Your task to perform on an android device: Open location settings Image 0: 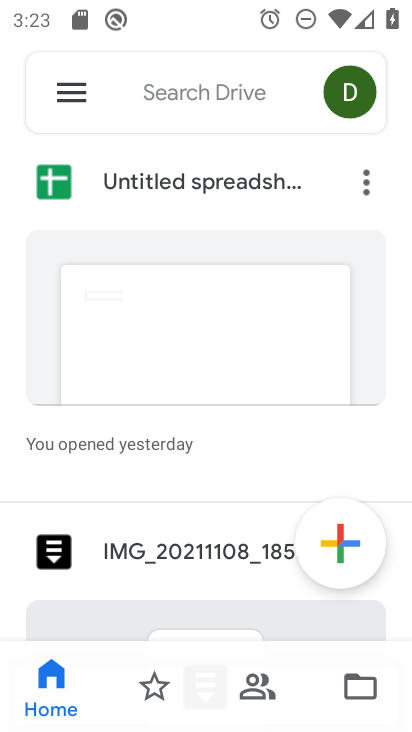
Step 0: press home button
Your task to perform on an android device: Open location settings Image 1: 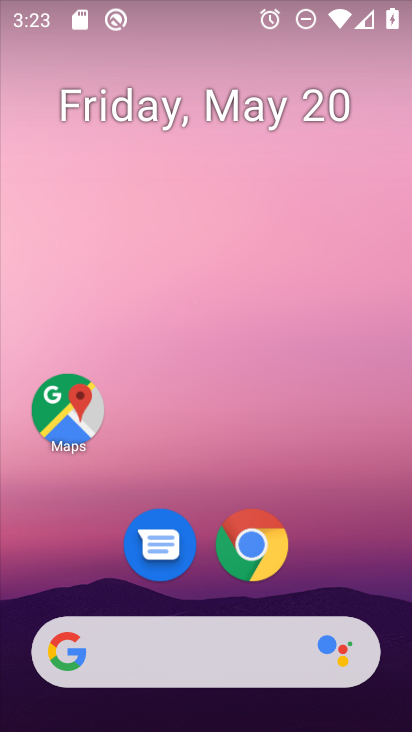
Step 1: drag from (360, 548) to (264, 41)
Your task to perform on an android device: Open location settings Image 2: 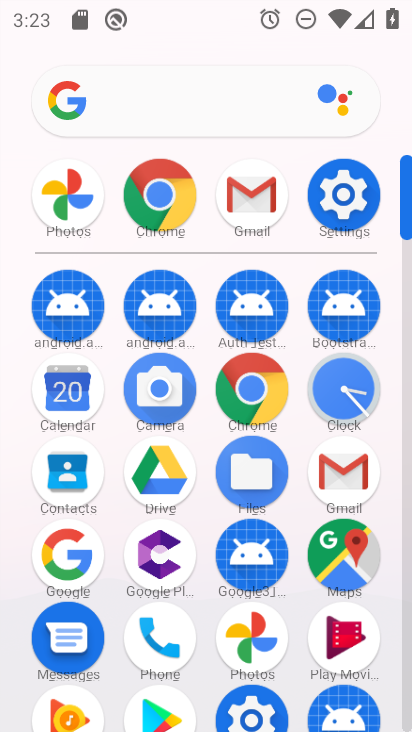
Step 2: click (350, 206)
Your task to perform on an android device: Open location settings Image 3: 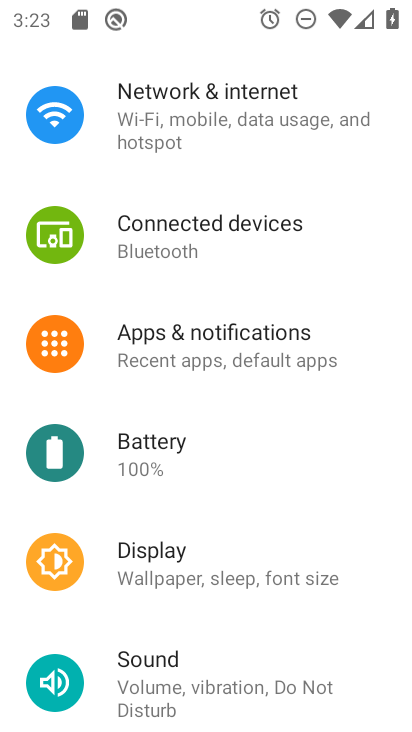
Step 3: drag from (275, 548) to (272, 228)
Your task to perform on an android device: Open location settings Image 4: 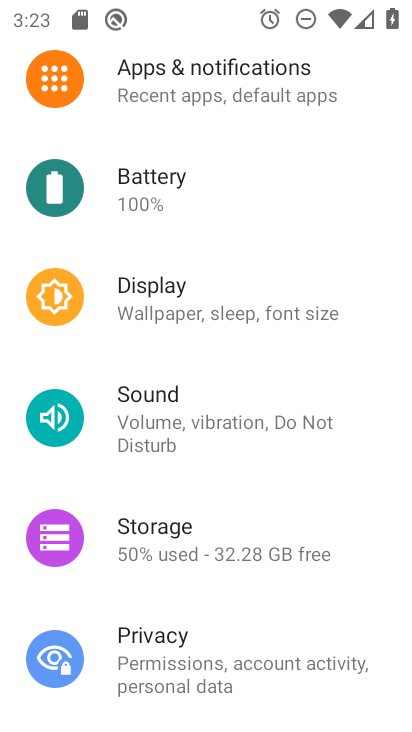
Step 4: drag from (265, 620) to (303, 152)
Your task to perform on an android device: Open location settings Image 5: 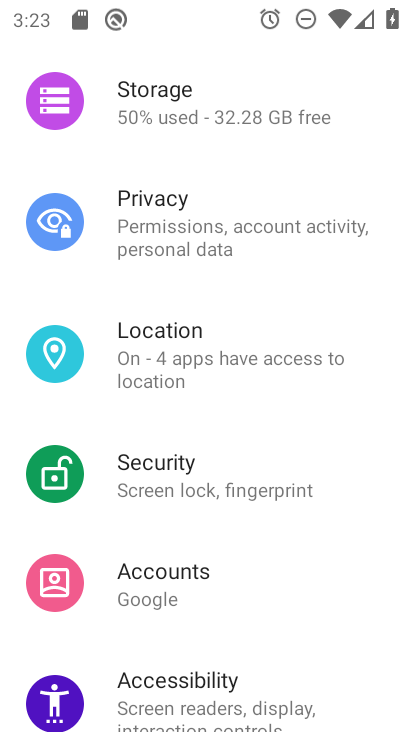
Step 5: click (212, 345)
Your task to perform on an android device: Open location settings Image 6: 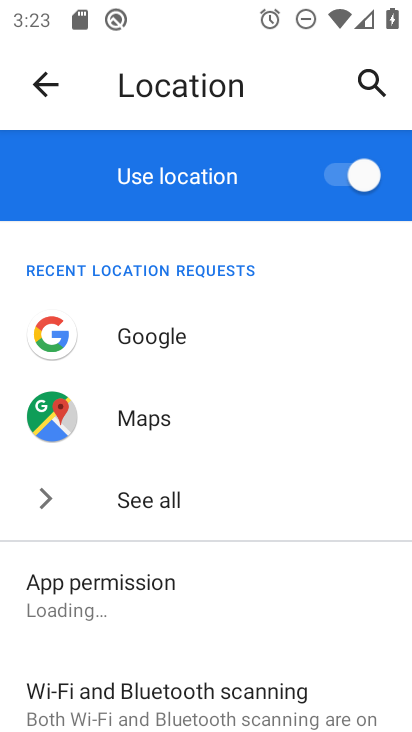
Step 6: task complete